Your task to perform on an android device: turn off notifications settings in the gmail app Image 0: 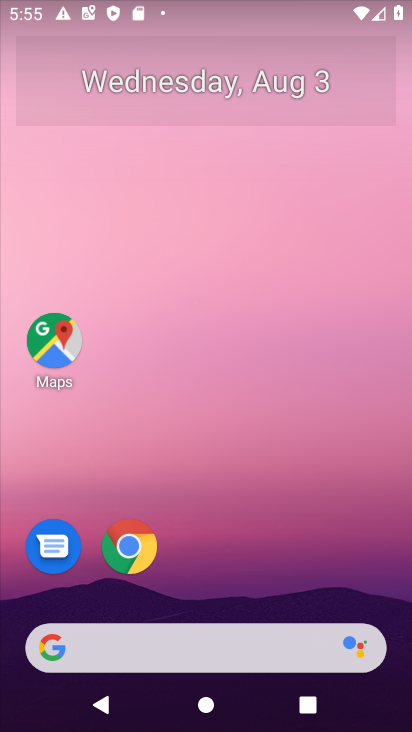
Step 0: press home button
Your task to perform on an android device: turn off notifications settings in the gmail app Image 1: 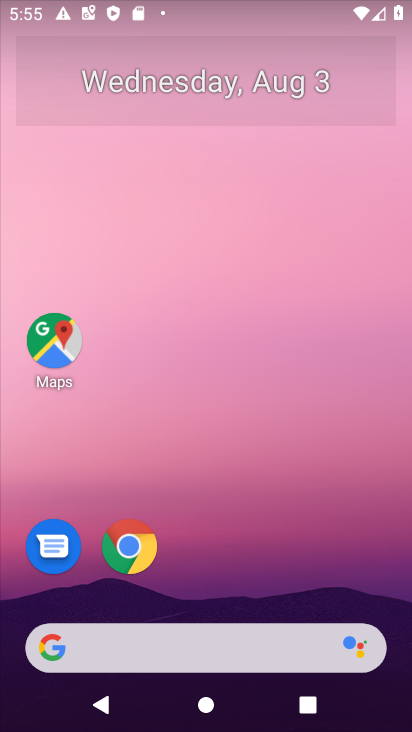
Step 1: drag from (237, 594) to (328, 104)
Your task to perform on an android device: turn off notifications settings in the gmail app Image 2: 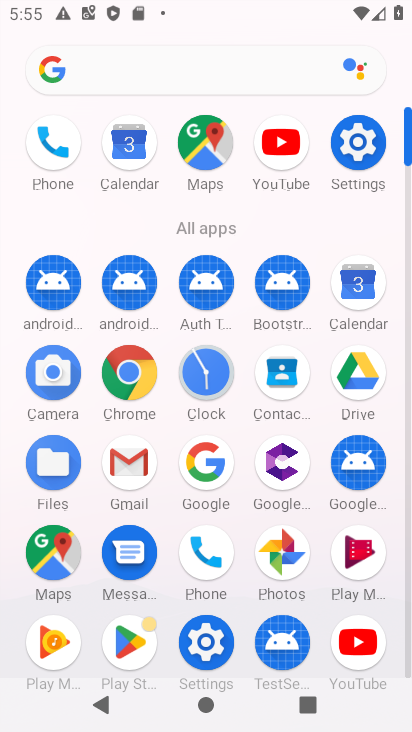
Step 2: click (129, 467)
Your task to perform on an android device: turn off notifications settings in the gmail app Image 3: 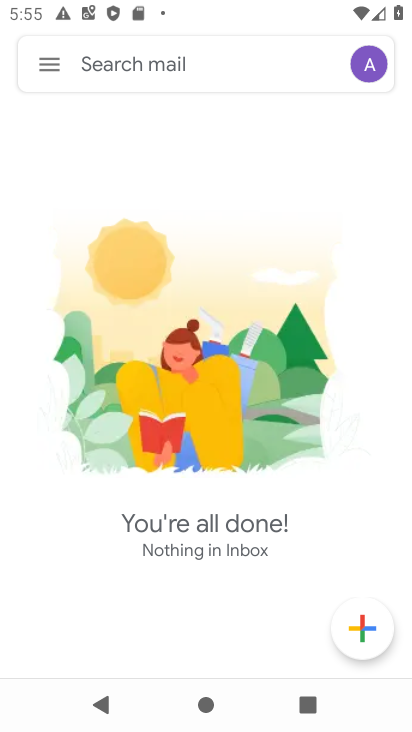
Step 3: click (46, 61)
Your task to perform on an android device: turn off notifications settings in the gmail app Image 4: 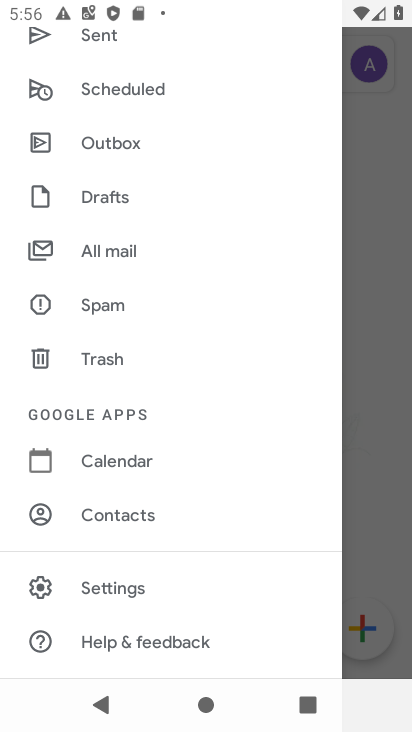
Step 4: click (110, 581)
Your task to perform on an android device: turn off notifications settings in the gmail app Image 5: 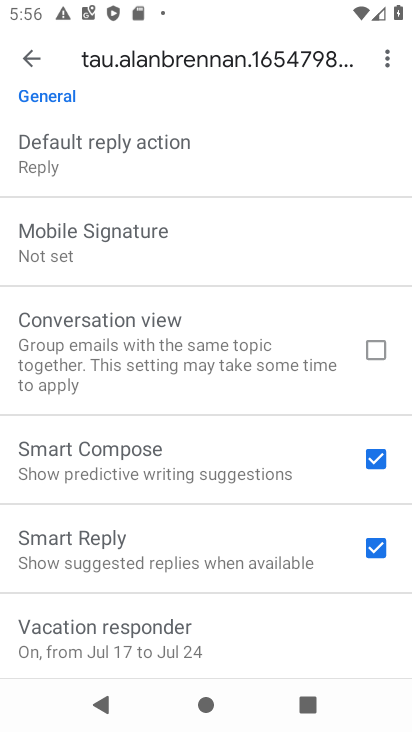
Step 5: drag from (327, 128) to (283, 526)
Your task to perform on an android device: turn off notifications settings in the gmail app Image 6: 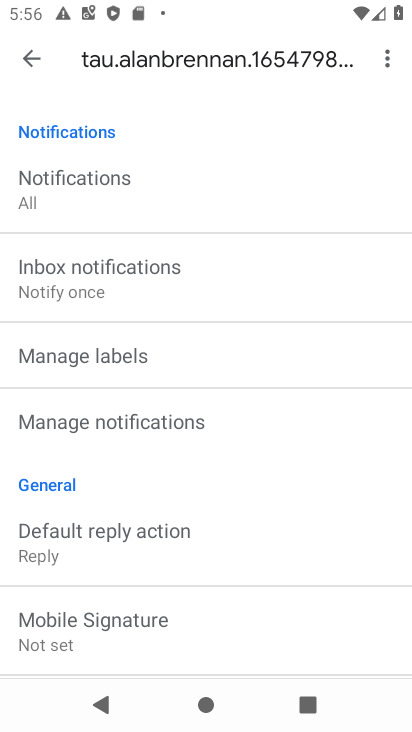
Step 6: click (114, 427)
Your task to perform on an android device: turn off notifications settings in the gmail app Image 7: 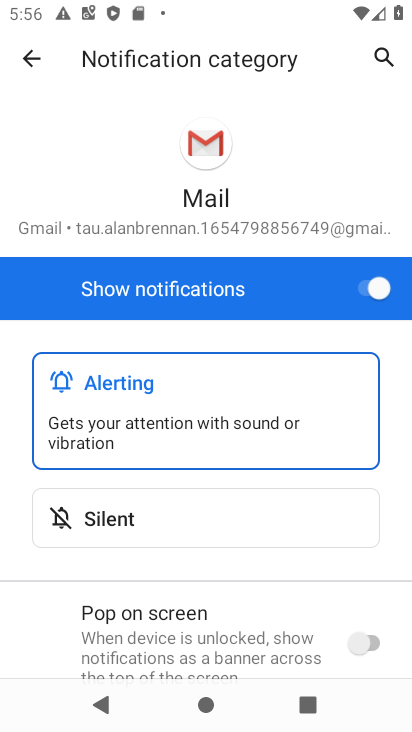
Step 7: click (382, 291)
Your task to perform on an android device: turn off notifications settings in the gmail app Image 8: 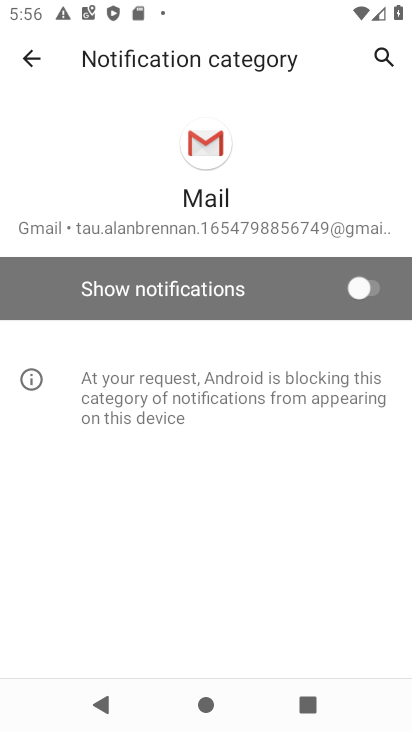
Step 8: task complete